Your task to perform on an android device: turn off smart reply in the gmail app Image 0: 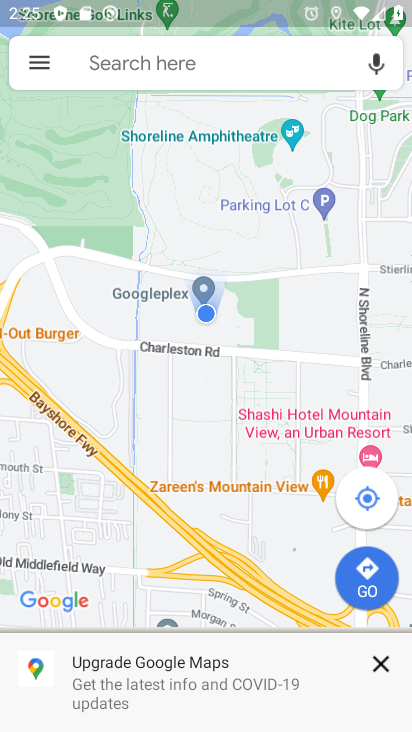
Step 0: press home button
Your task to perform on an android device: turn off smart reply in the gmail app Image 1: 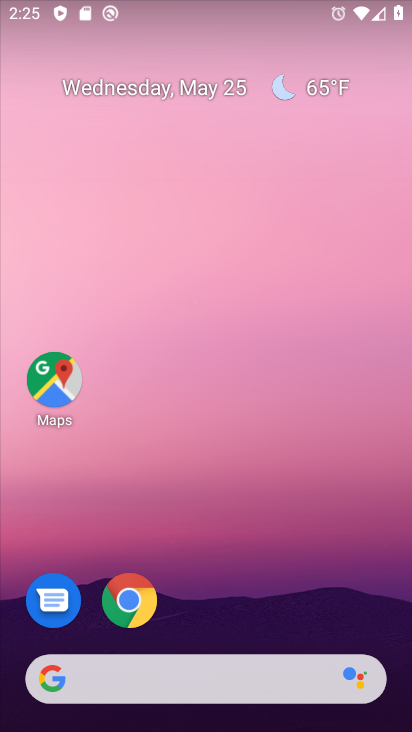
Step 1: drag from (215, 620) to (255, 189)
Your task to perform on an android device: turn off smart reply in the gmail app Image 2: 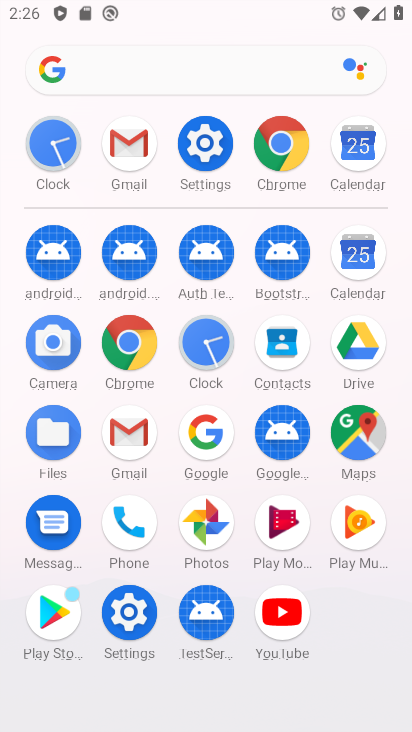
Step 2: click (140, 435)
Your task to perform on an android device: turn off smart reply in the gmail app Image 3: 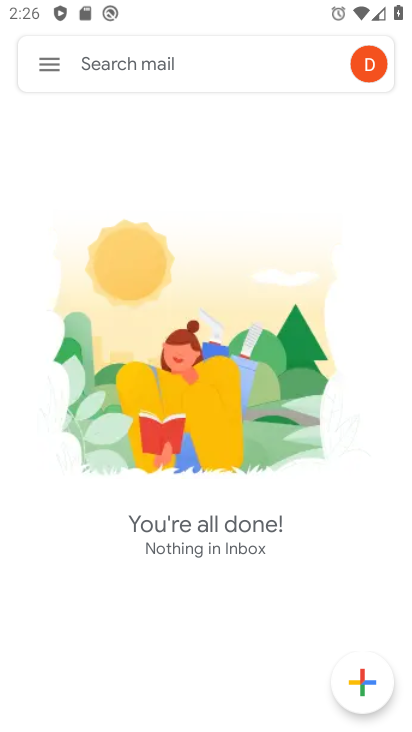
Step 3: click (46, 67)
Your task to perform on an android device: turn off smart reply in the gmail app Image 4: 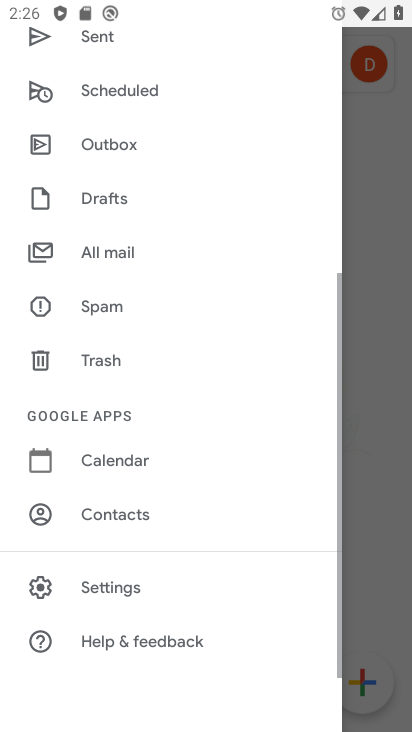
Step 4: click (135, 596)
Your task to perform on an android device: turn off smart reply in the gmail app Image 5: 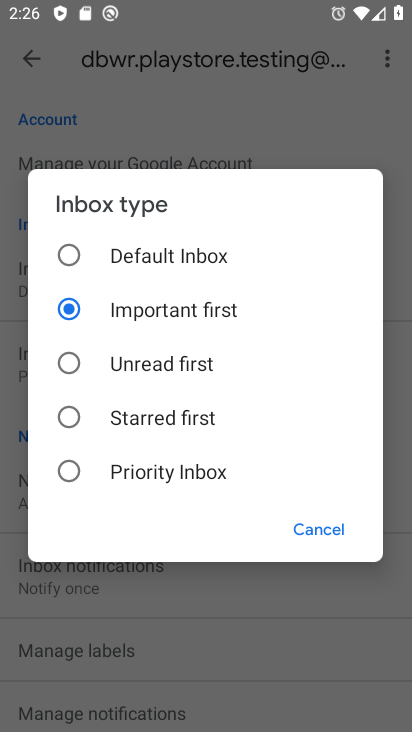
Step 5: click (307, 529)
Your task to perform on an android device: turn off smart reply in the gmail app Image 6: 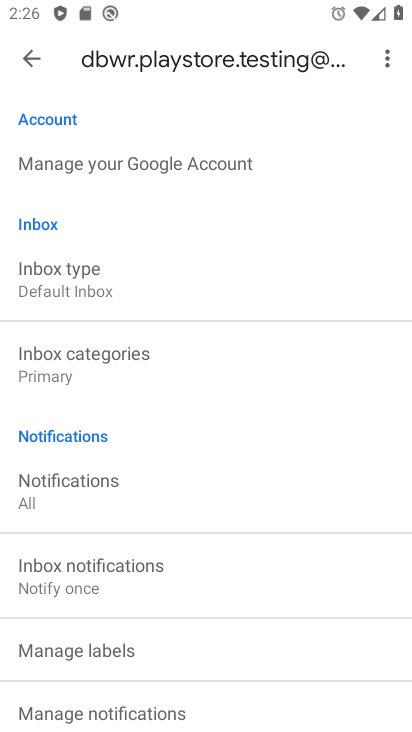
Step 6: drag from (166, 632) to (194, 266)
Your task to perform on an android device: turn off smart reply in the gmail app Image 7: 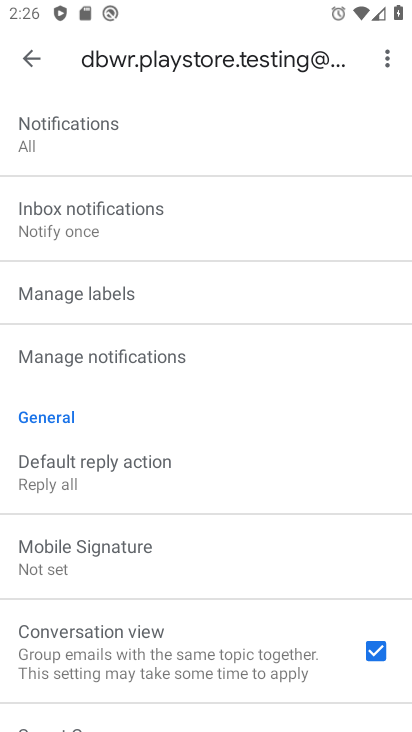
Step 7: drag from (193, 266) to (147, 595)
Your task to perform on an android device: turn off smart reply in the gmail app Image 8: 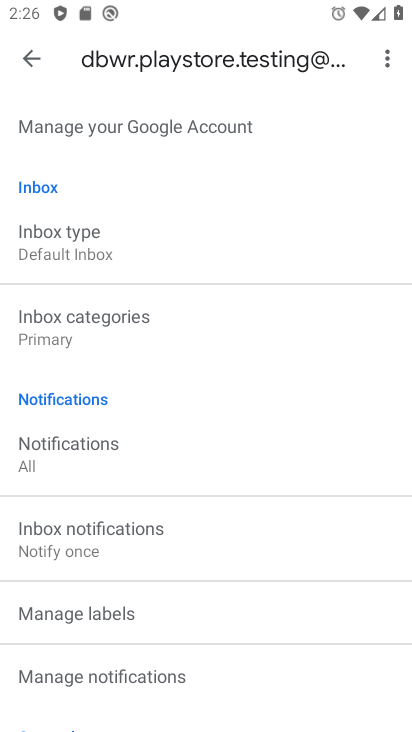
Step 8: drag from (116, 687) to (186, 197)
Your task to perform on an android device: turn off smart reply in the gmail app Image 9: 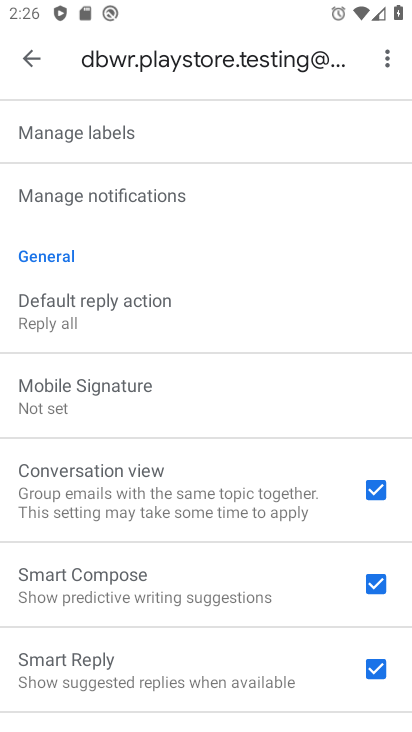
Step 9: drag from (162, 539) to (244, 273)
Your task to perform on an android device: turn off smart reply in the gmail app Image 10: 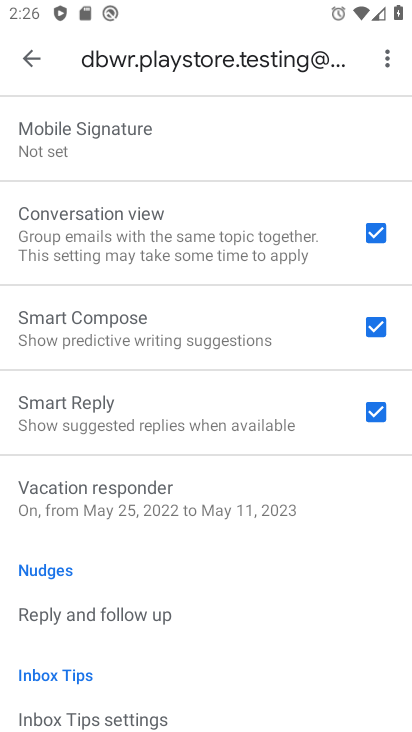
Step 10: click (367, 416)
Your task to perform on an android device: turn off smart reply in the gmail app Image 11: 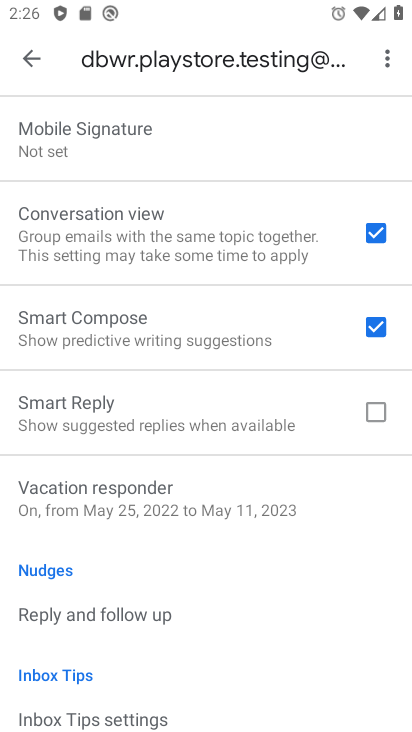
Step 11: task complete